Your task to perform on an android device: create a new album in the google photos Image 0: 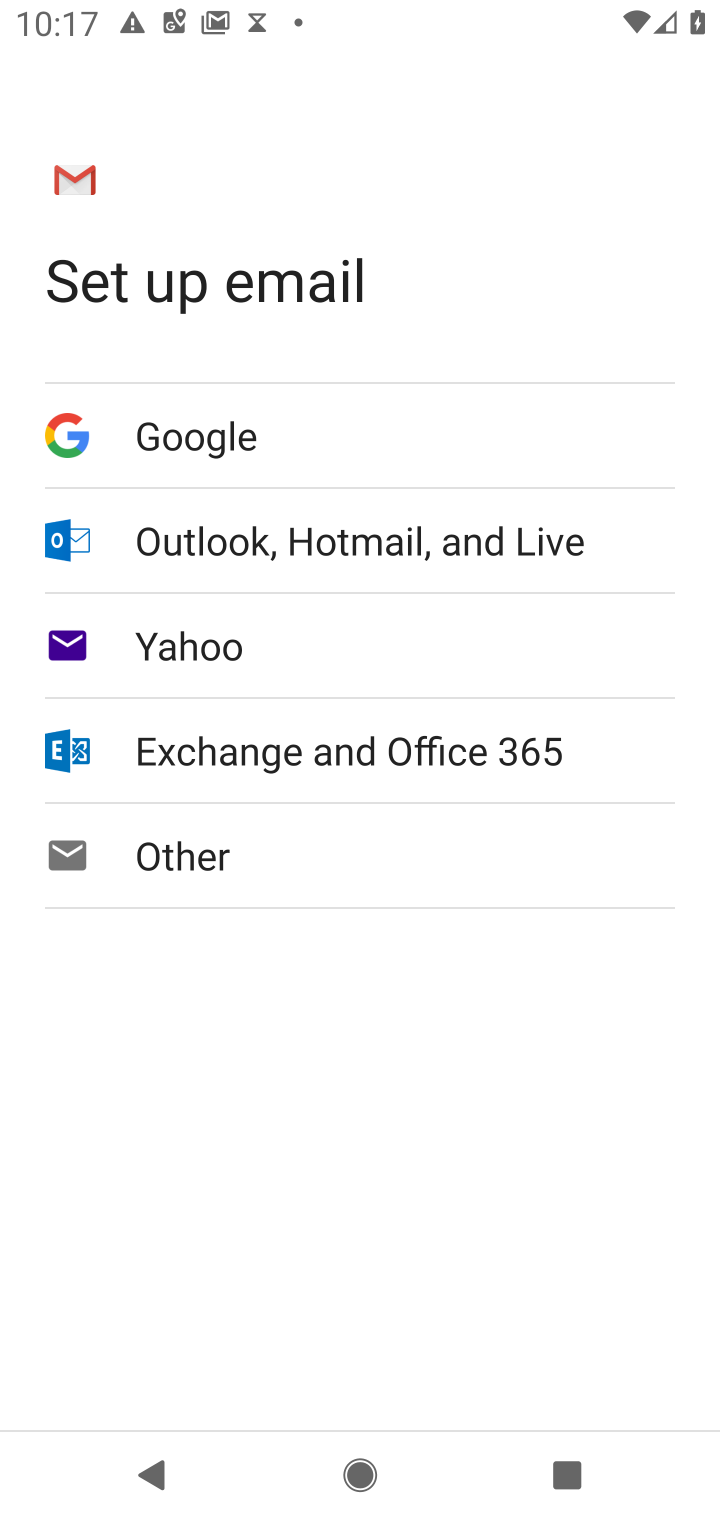
Step 0: press home button
Your task to perform on an android device: create a new album in the google photos Image 1: 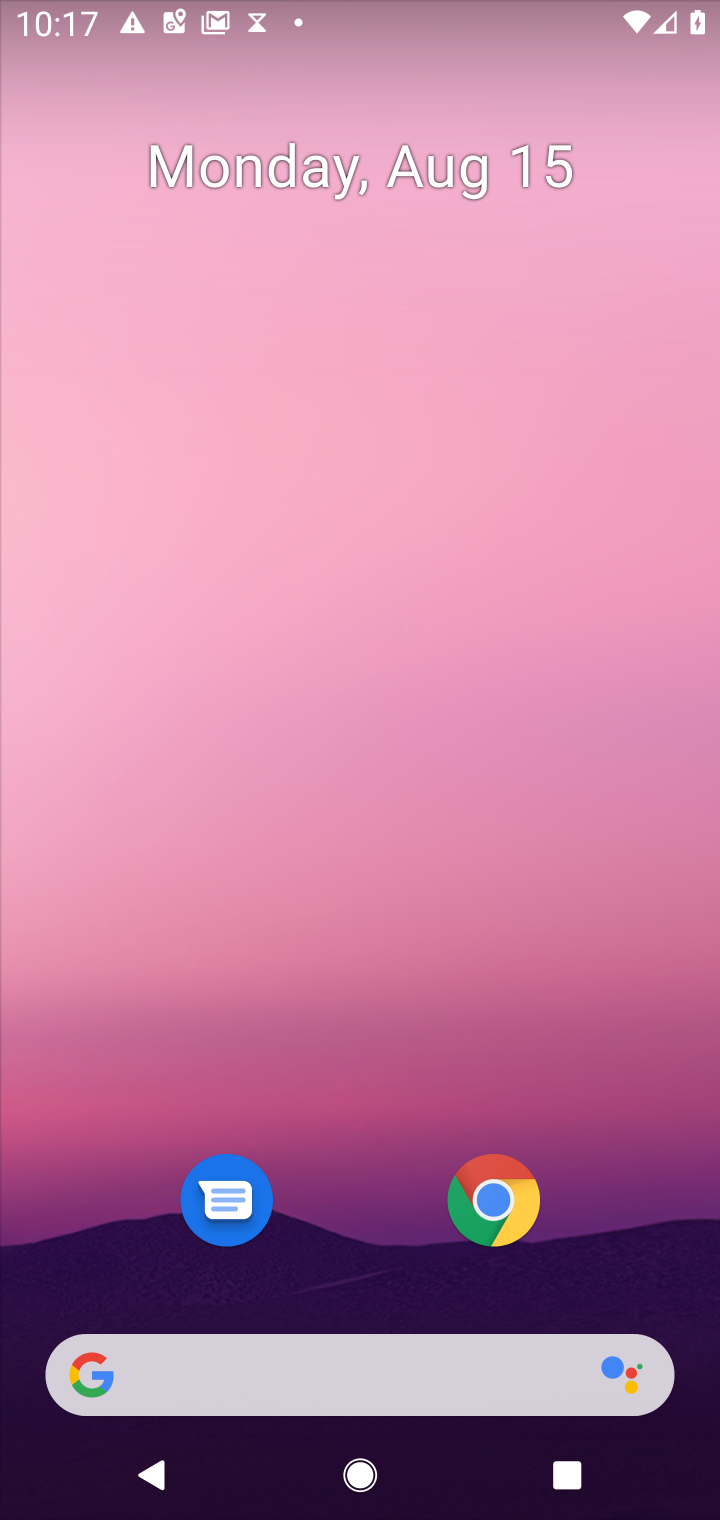
Step 1: drag from (361, 1267) to (360, 250)
Your task to perform on an android device: create a new album in the google photos Image 2: 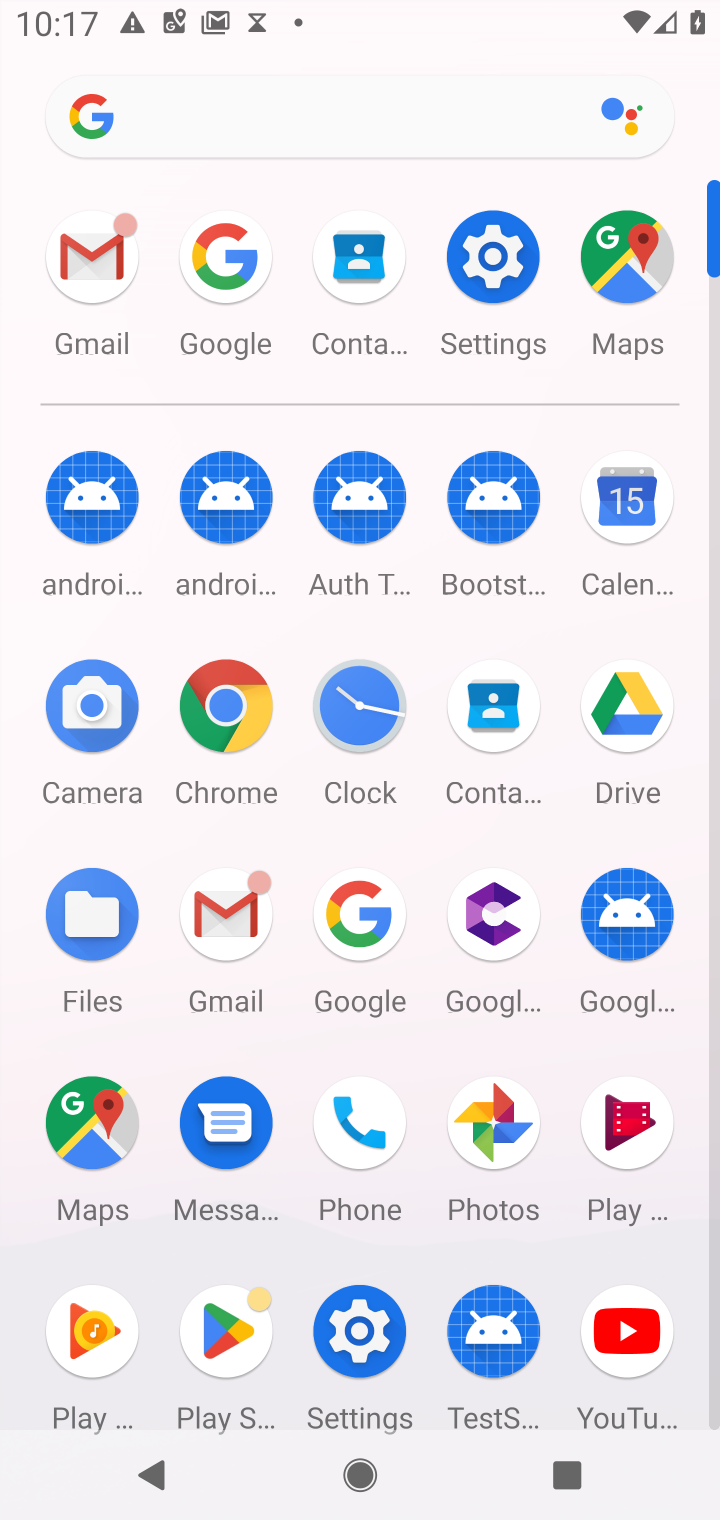
Step 2: click (479, 1116)
Your task to perform on an android device: create a new album in the google photos Image 3: 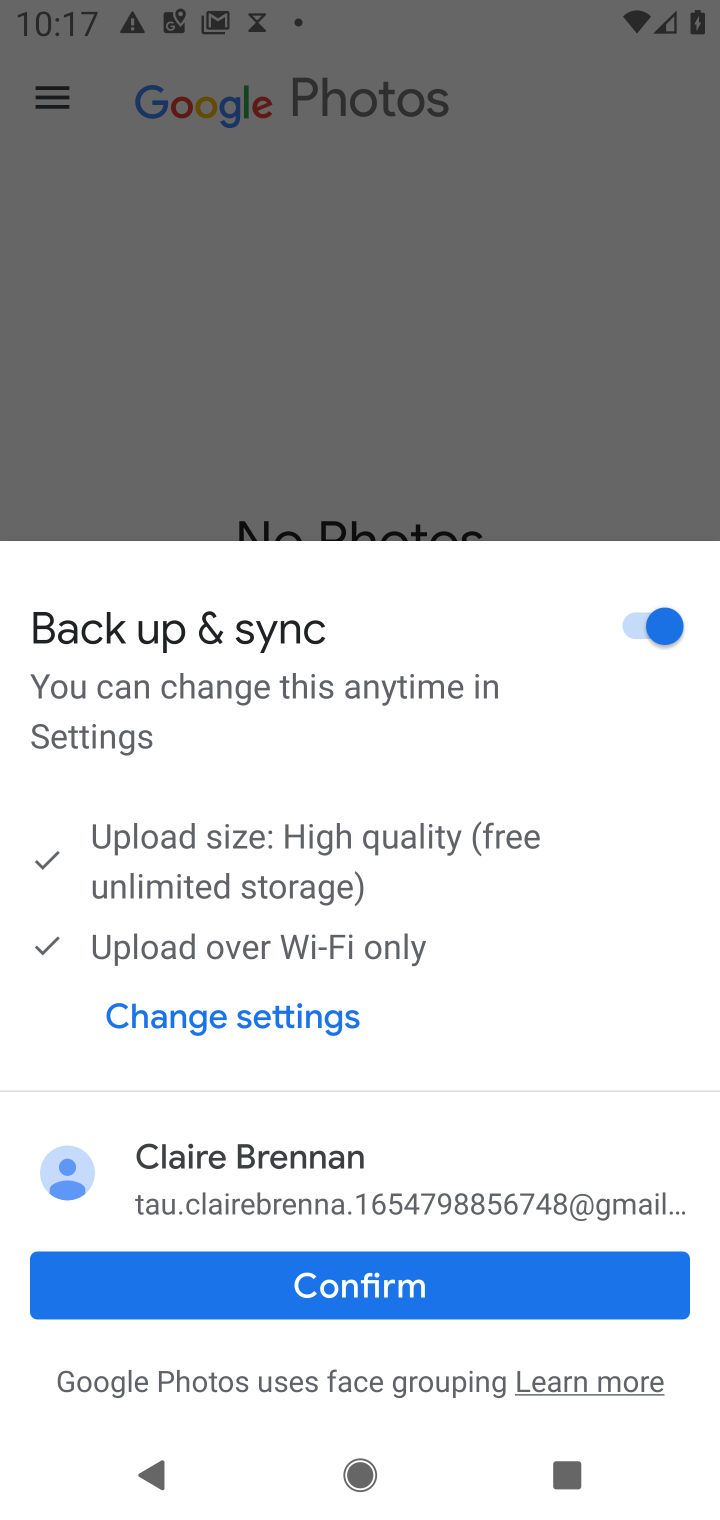
Step 3: click (480, 1273)
Your task to perform on an android device: create a new album in the google photos Image 4: 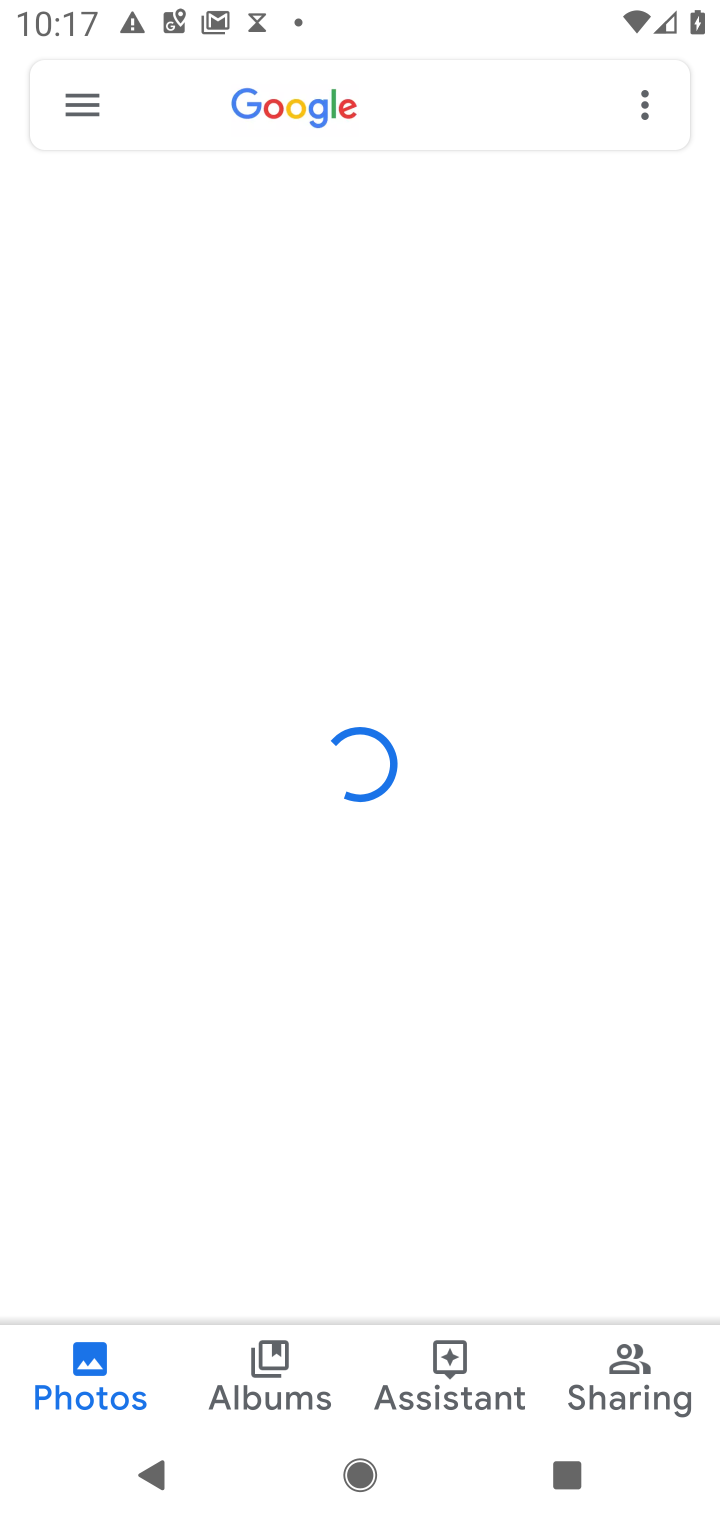
Step 4: click (633, 106)
Your task to perform on an android device: create a new album in the google photos Image 5: 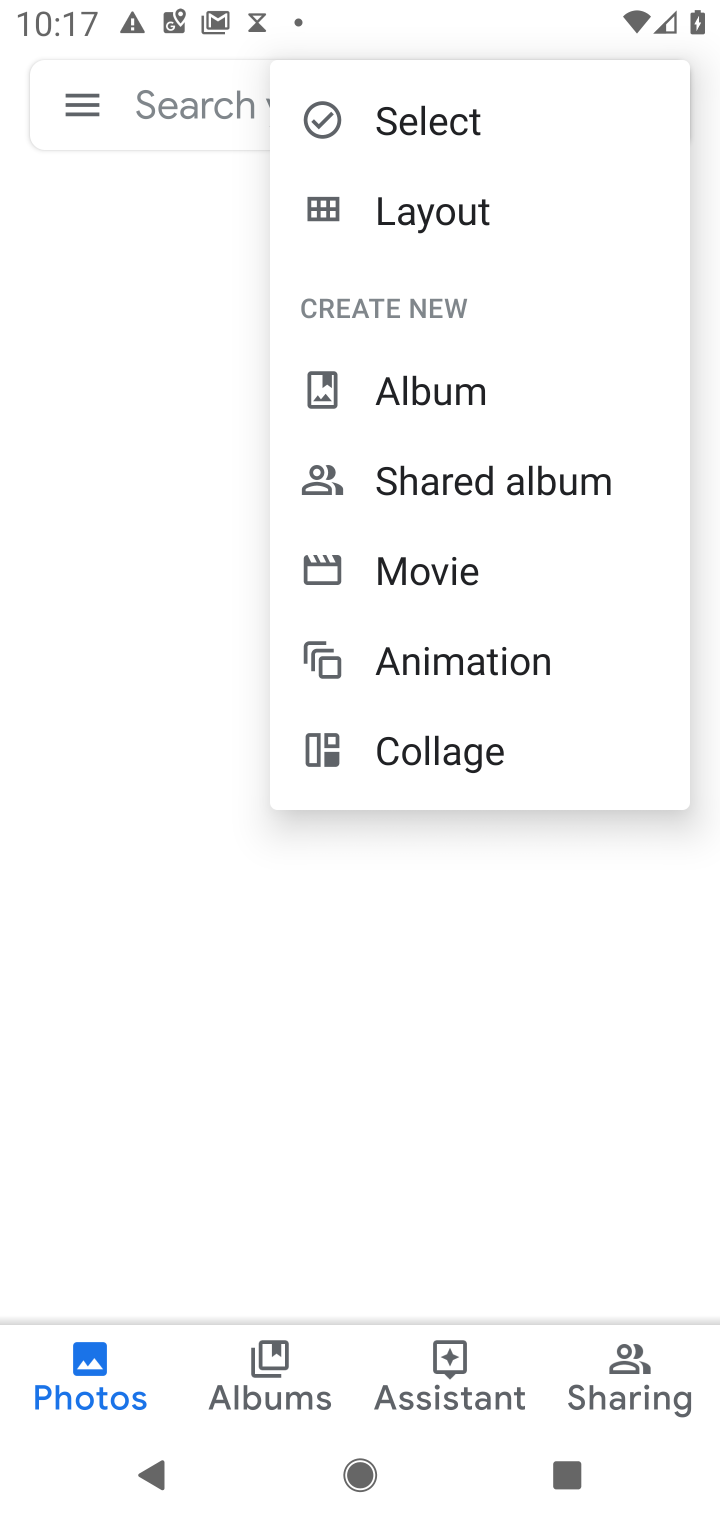
Step 5: click (431, 372)
Your task to perform on an android device: create a new album in the google photos Image 6: 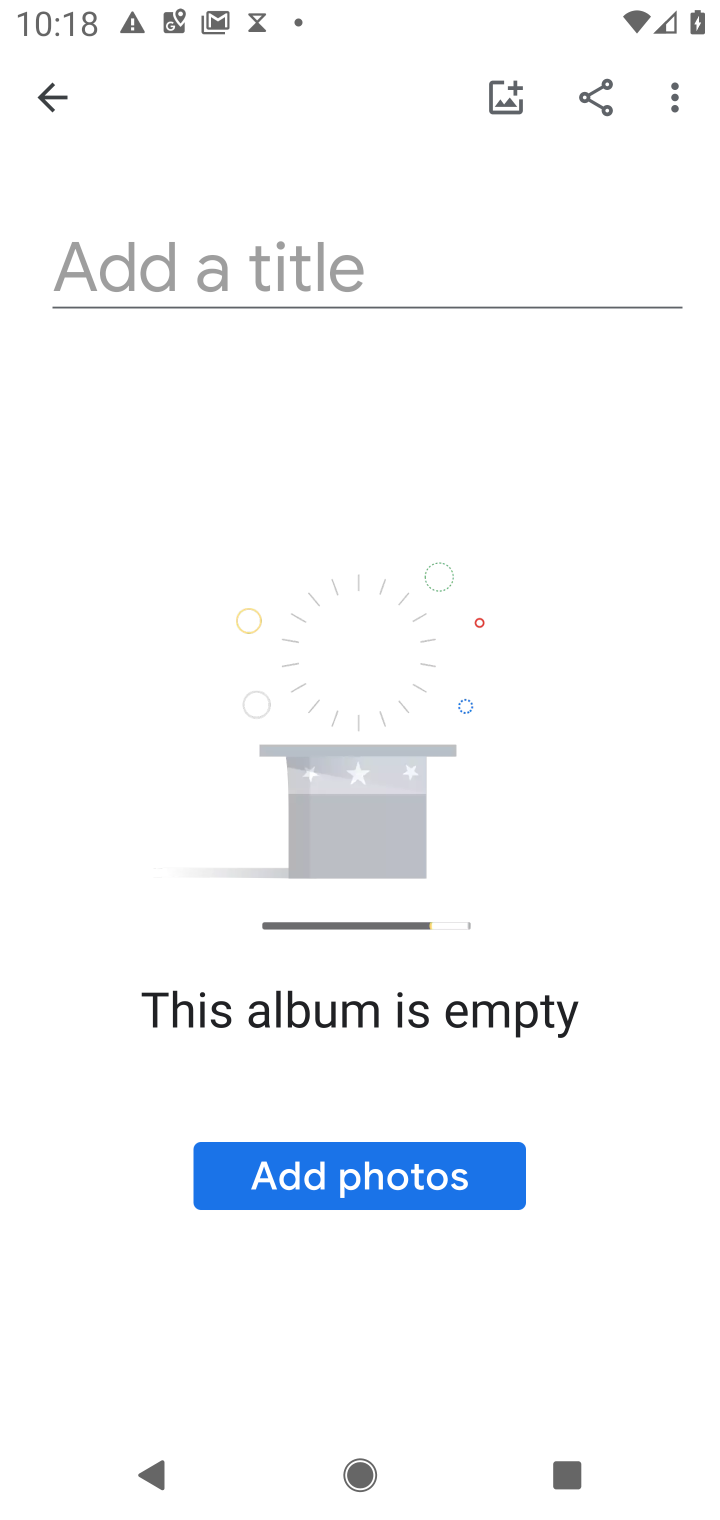
Step 6: click (284, 1190)
Your task to perform on an android device: create a new album in the google photos Image 7: 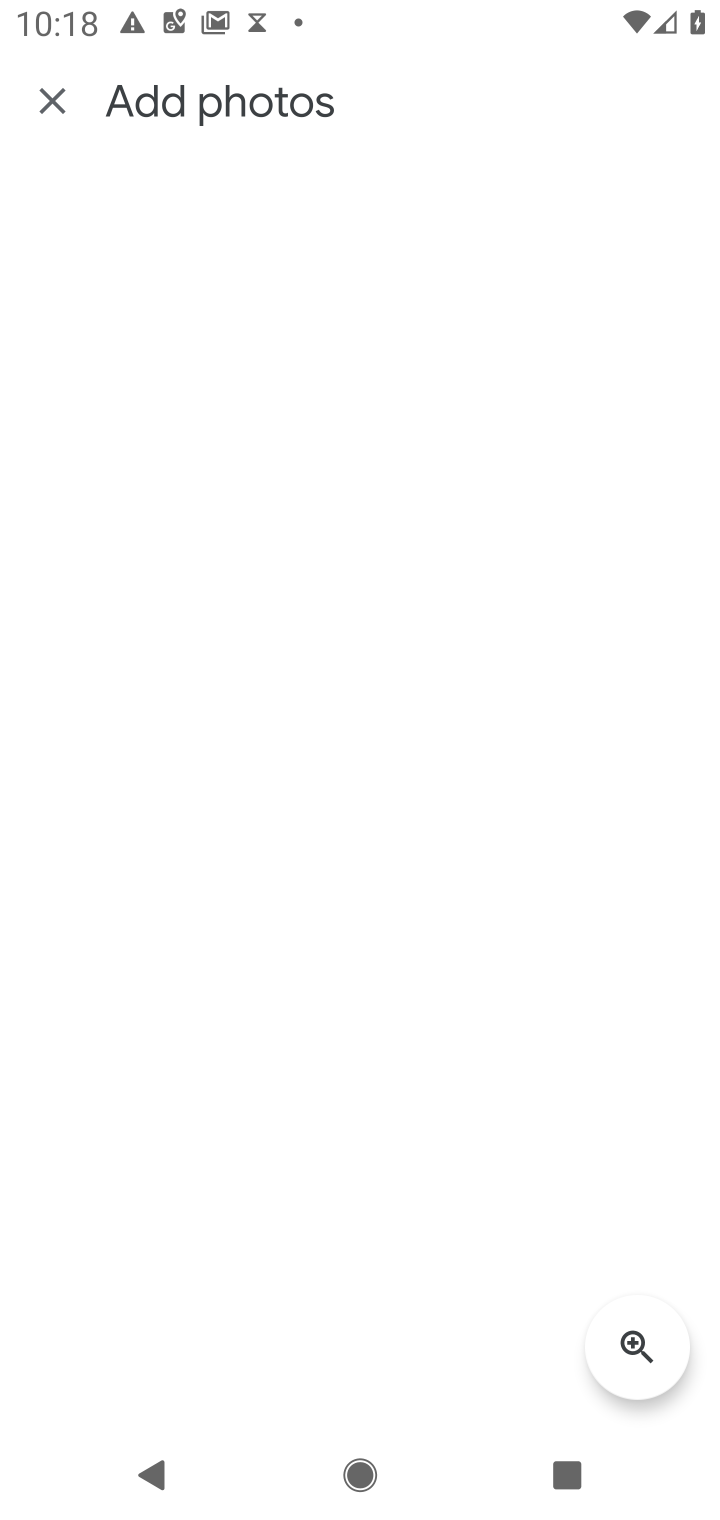
Step 7: click (34, 104)
Your task to perform on an android device: create a new album in the google photos Image 8: 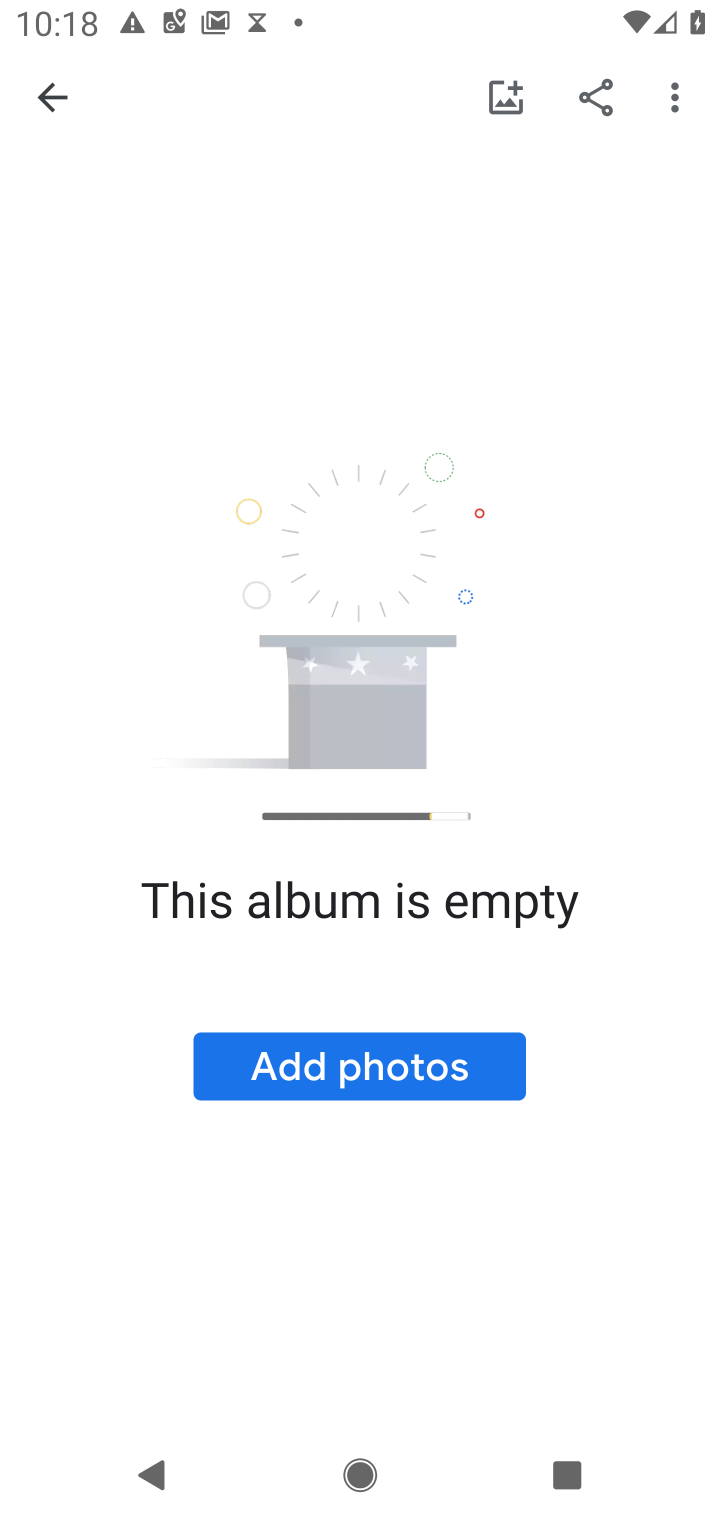
Step 8: click (50, 81)
Your task to perform on an android device: create a new album in the google photos Image 9: 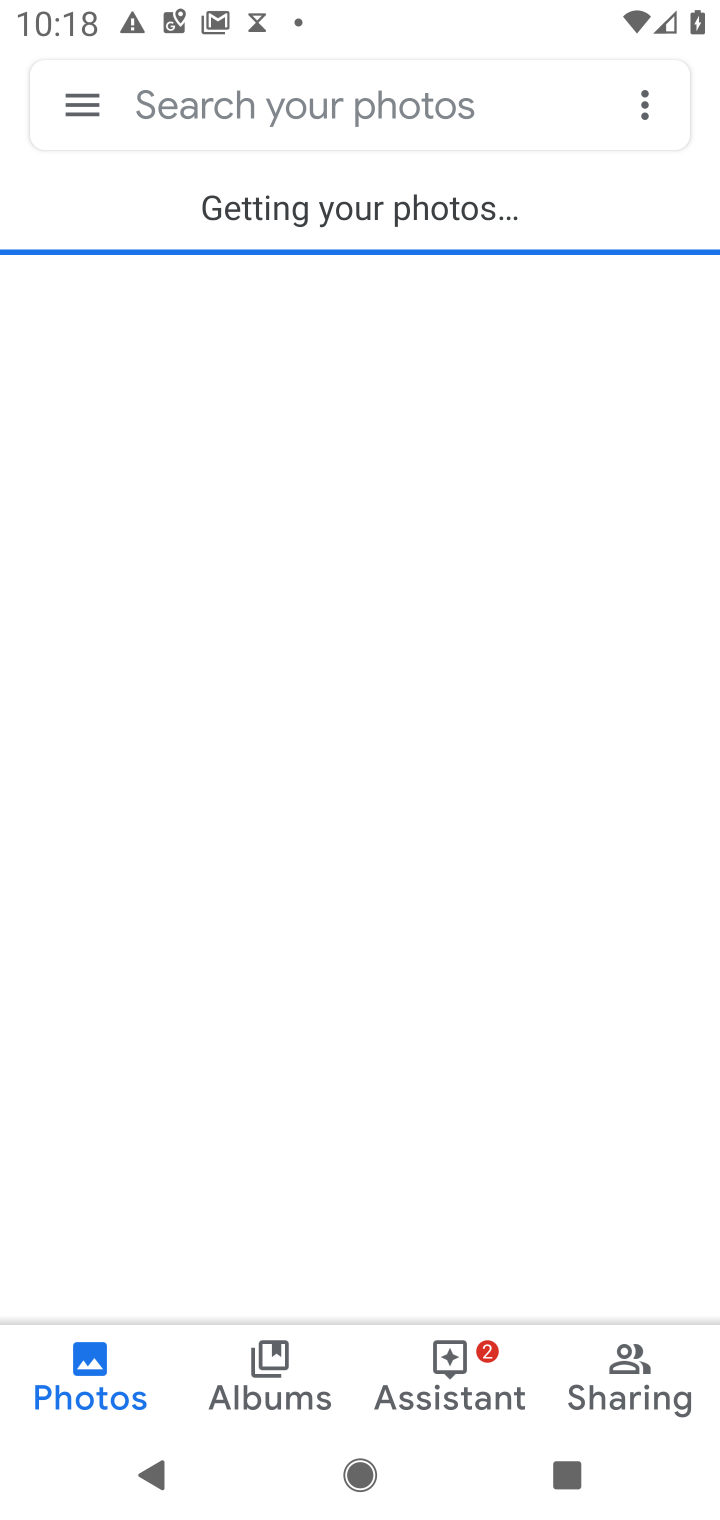
Step 9: click (655, 96)
Your task to perform on an android device: create a new album in the google photos Image 10: 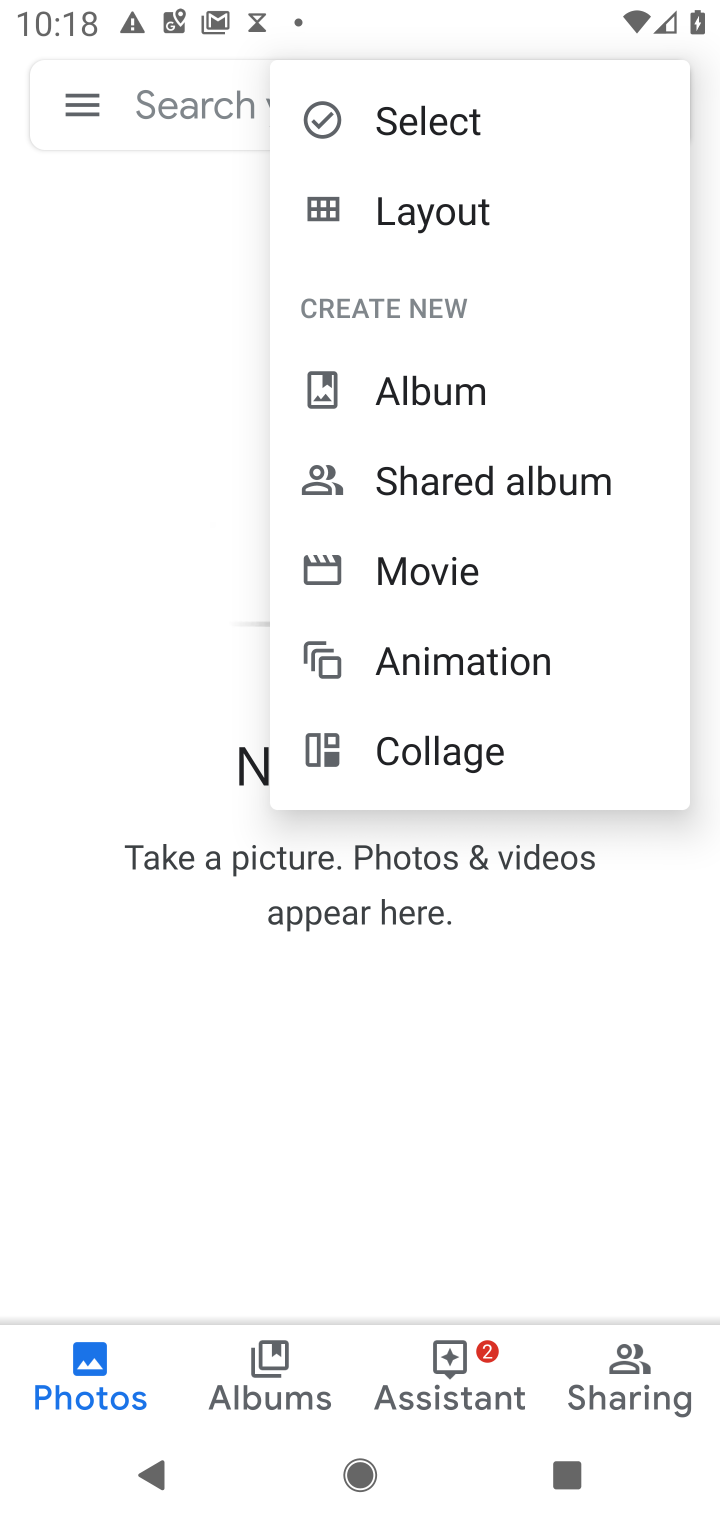
Step 10: click (389, 388)
Your task to perform on an android device: create a new album in the google photos Image 11: 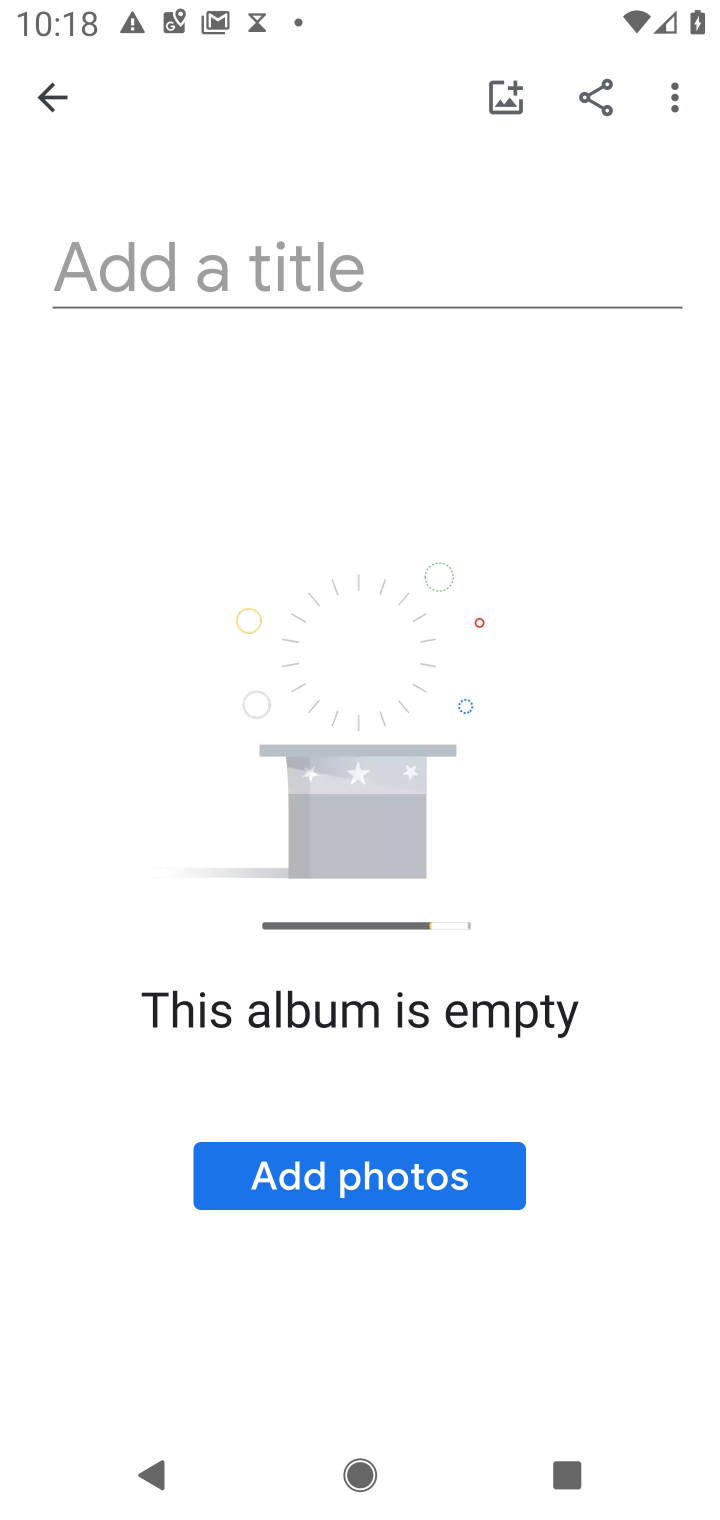
Step 11: click (217, 239)
Your task to perform on an android device: create a new album in the google photos Image 12: 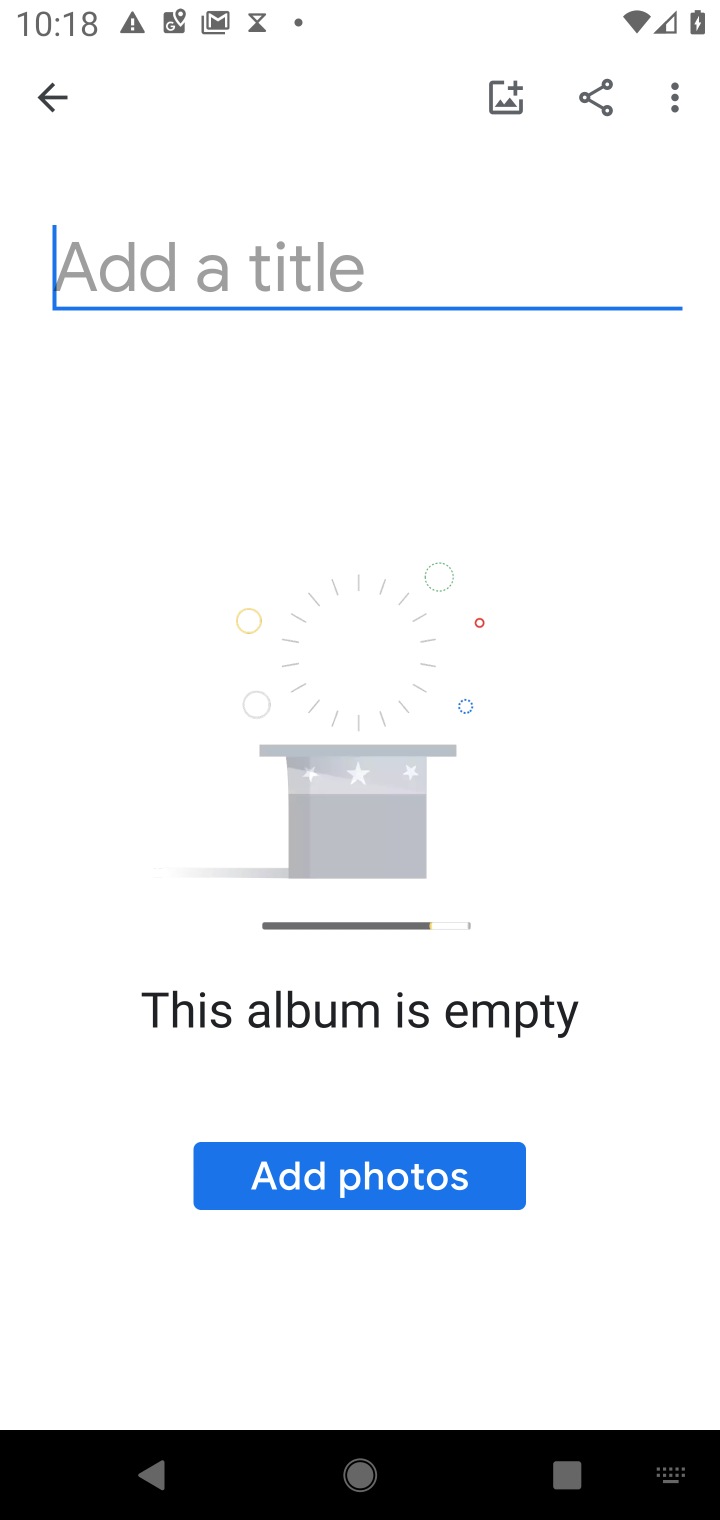
Step 12: type "fghfgj"
Your task to perform on an android device: create a new album in the google photos Image 13: 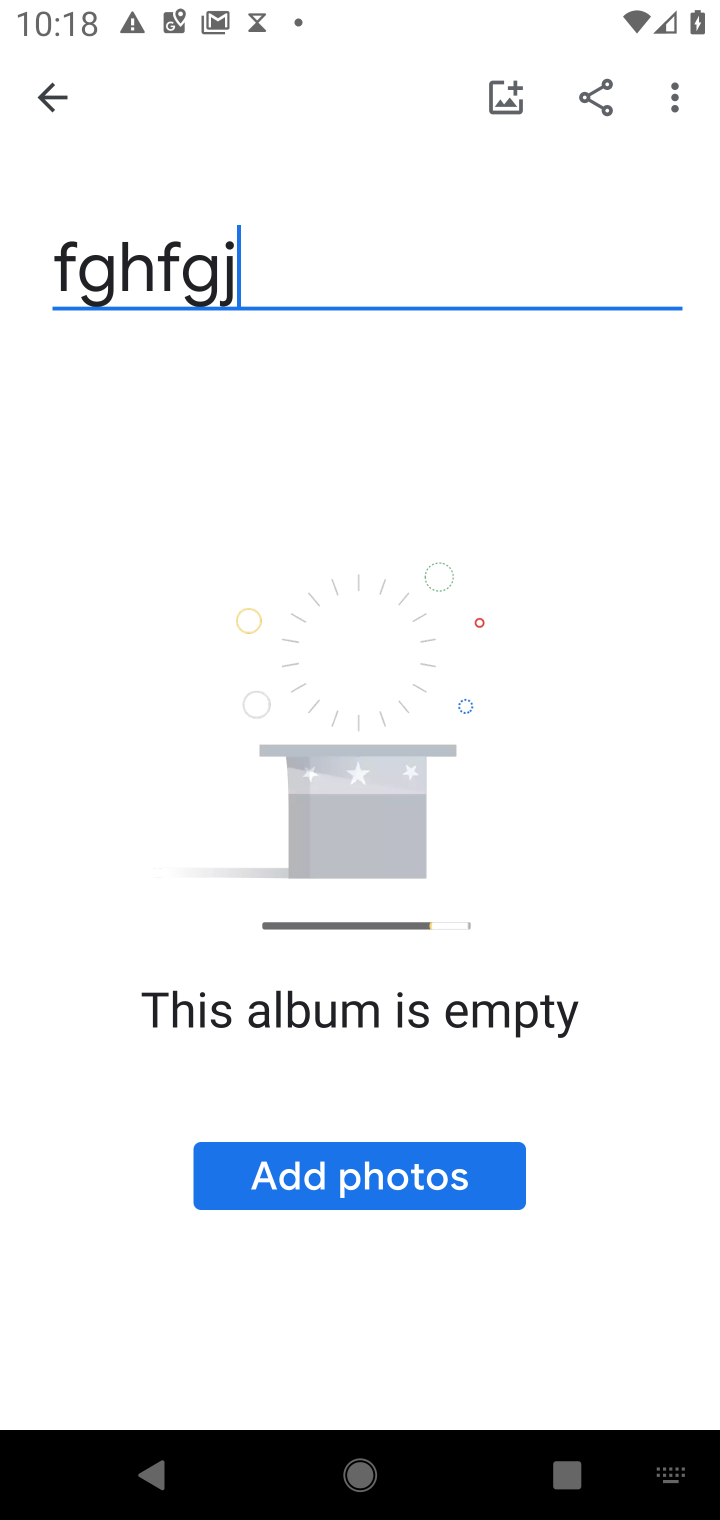
Step 13: task complete